Your task to perform on an android device: toggle sleep mode Image 0: 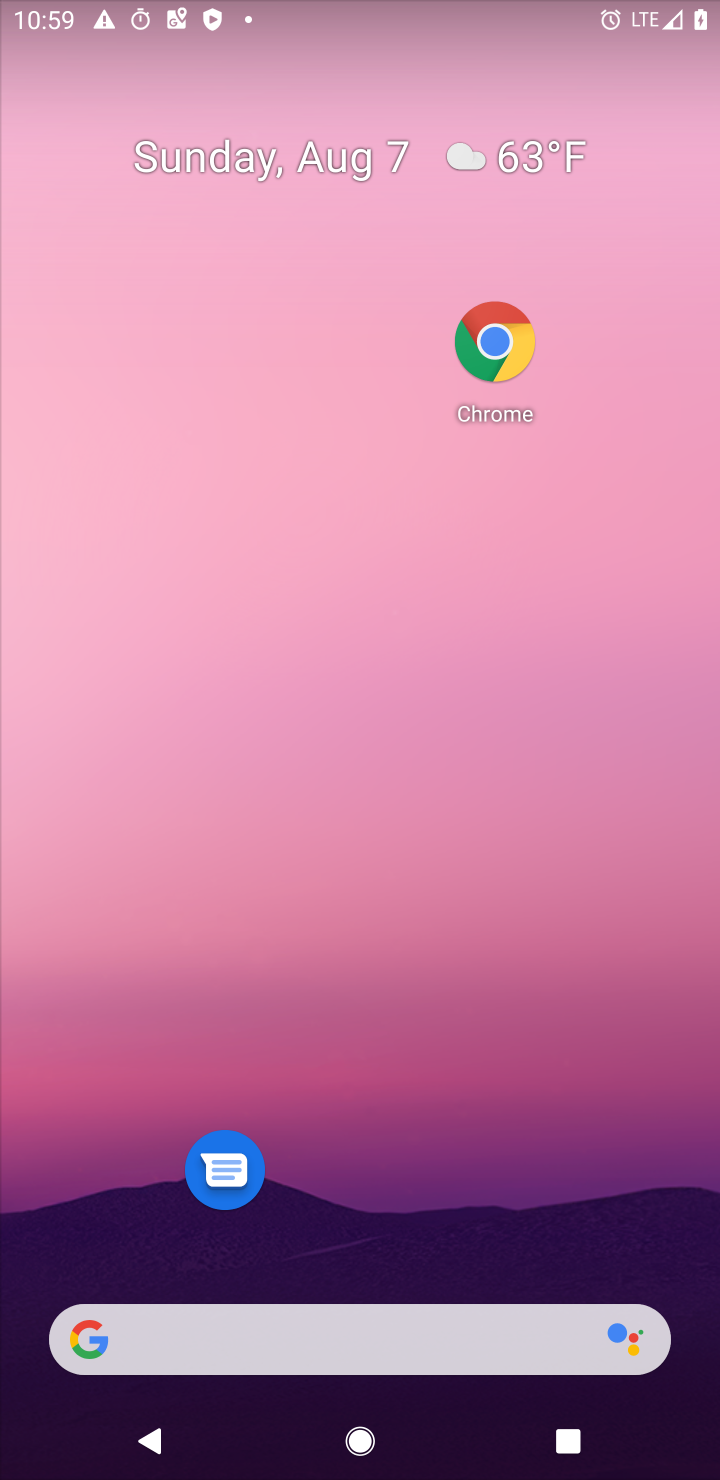
Step 0: drag from (502, 1346) to (493, 7)
Your task to perform on an android device: toggle sleep mode Image 1: 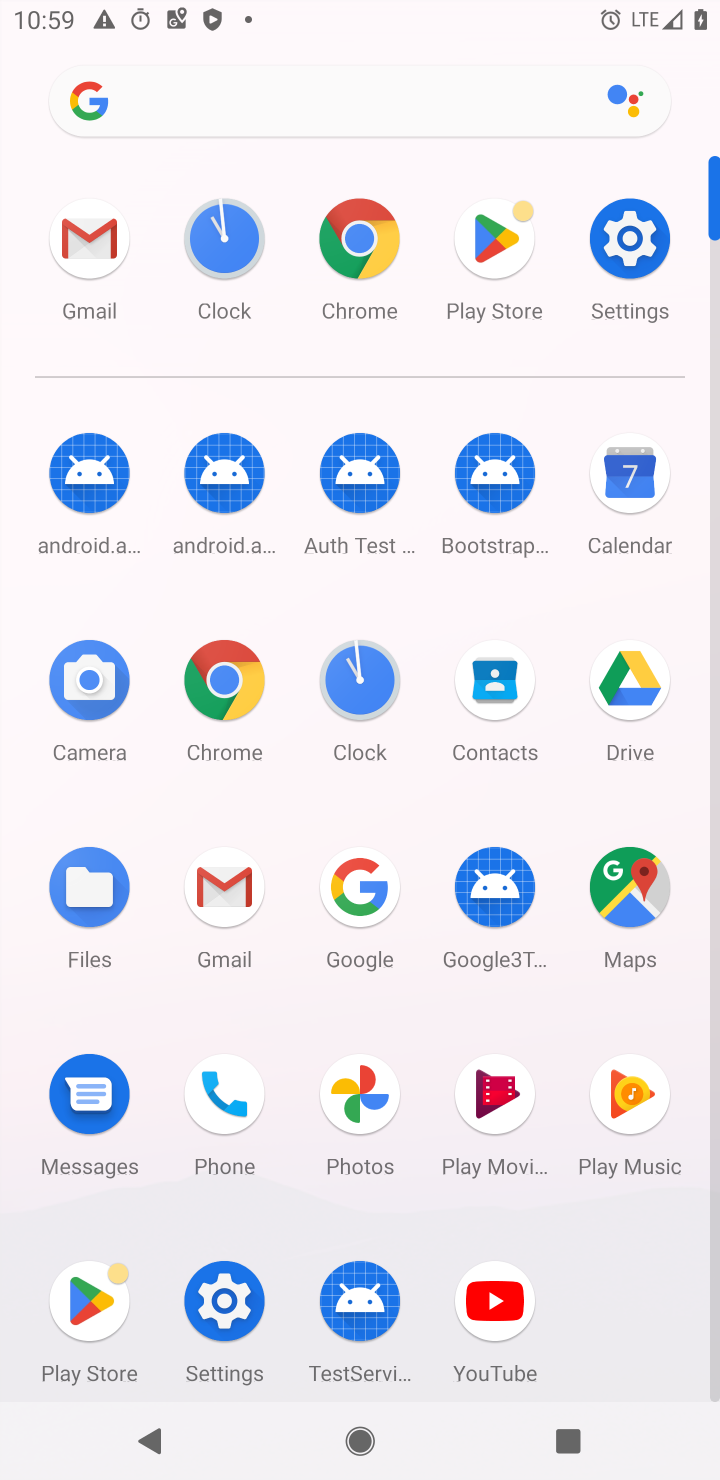
Step 1: click (645, 254)
Your task to perform on an android device: toggle sleep mode Image 2: 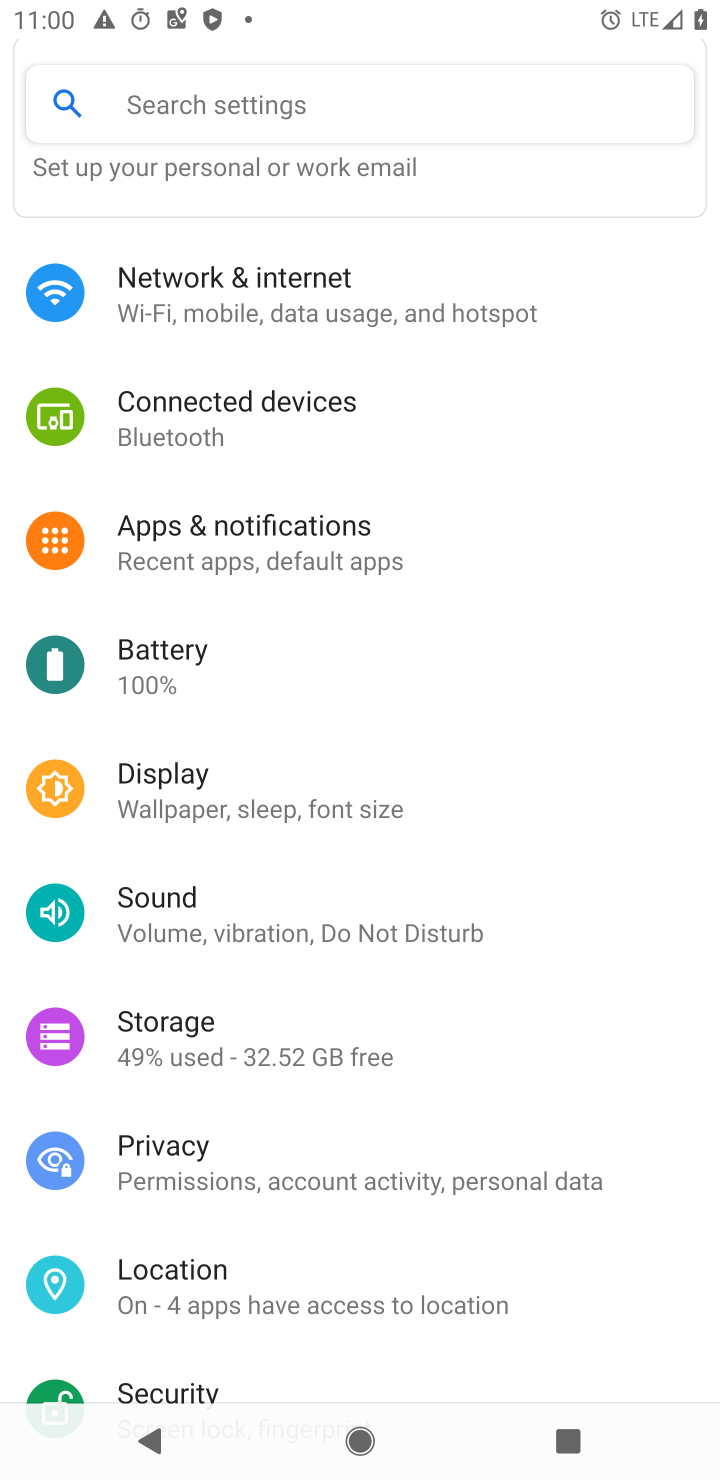
Step 2: click (244, 795)
Your task to perform on an android device: toggle sleep mode Image 3: 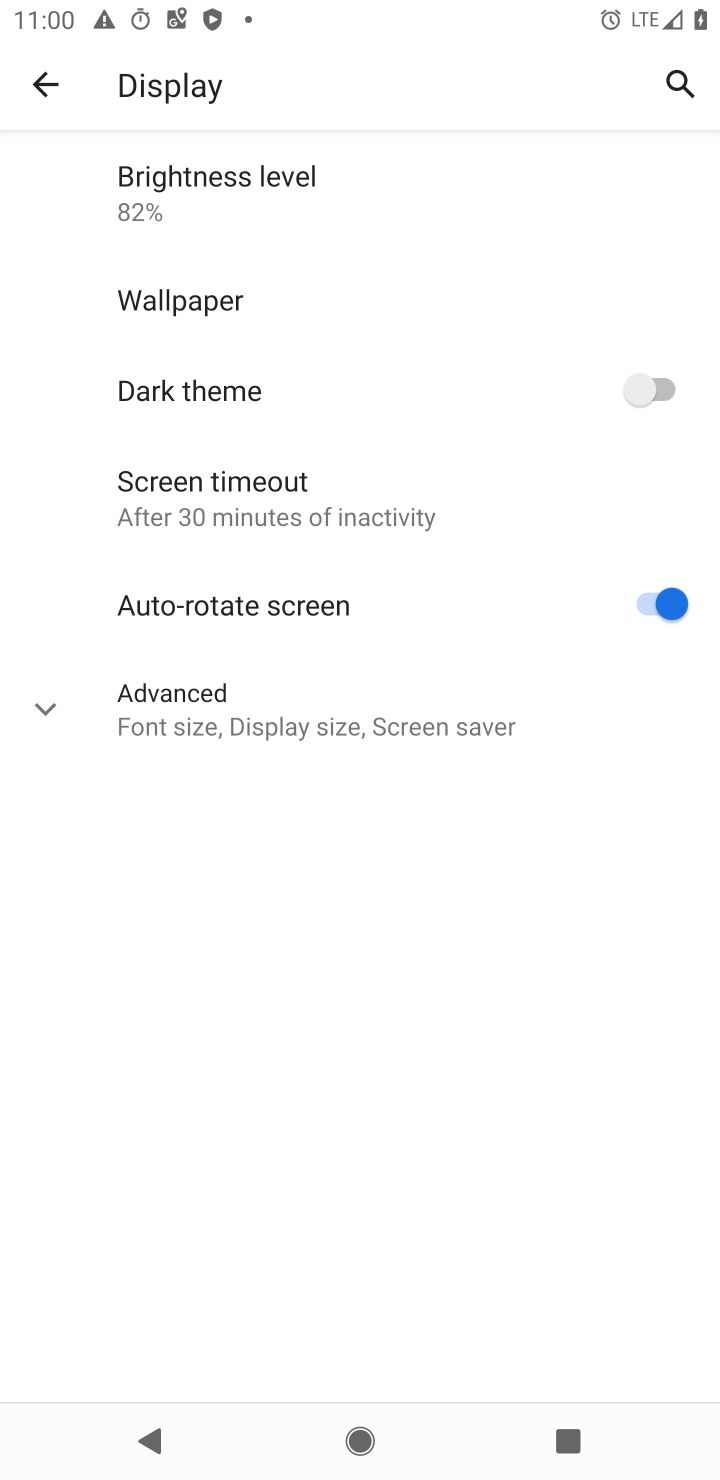
Step 3: task complete